Your task to perform on an android device: Open Amazon Image 0: 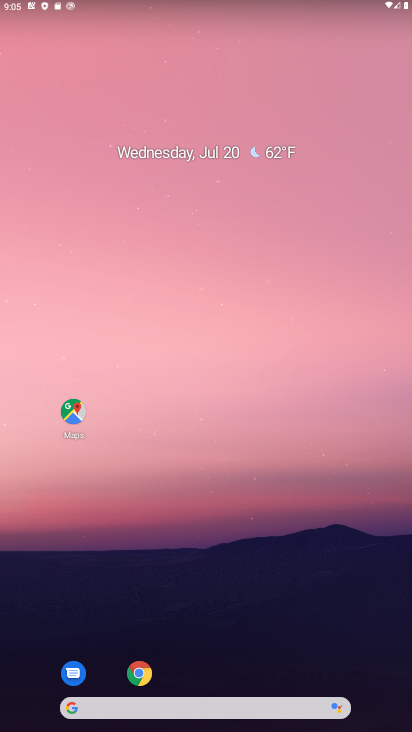
Step 0: click (140, 671)
Your task to perform on an android device: Open Amazon Image 1: 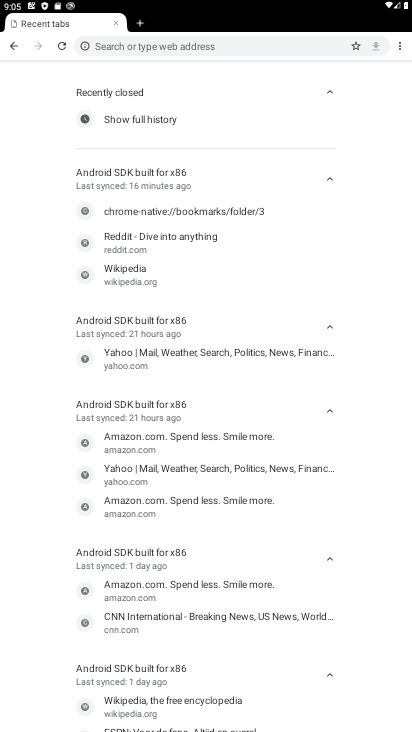
Step 1: click (312, 43)
Your task to perform on an android device: Open Amazon Image 2: 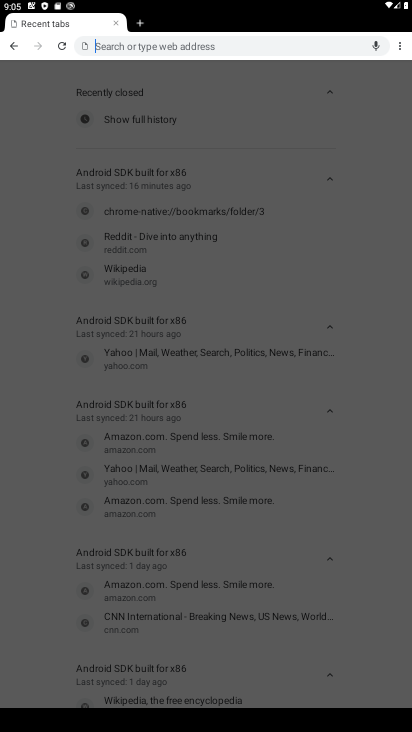
Step 2: type "Amazon"
Your task to perform on an android device: Open Amazon Image 3: 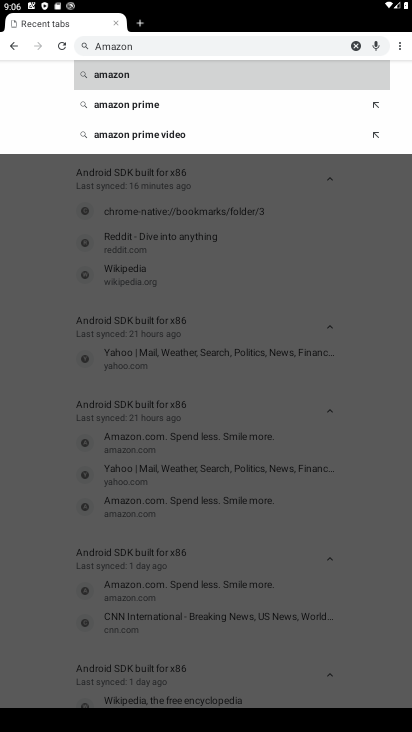
Step 3: click (136, 67)
Your task to perform on an android device: Open Amazon Image 4: 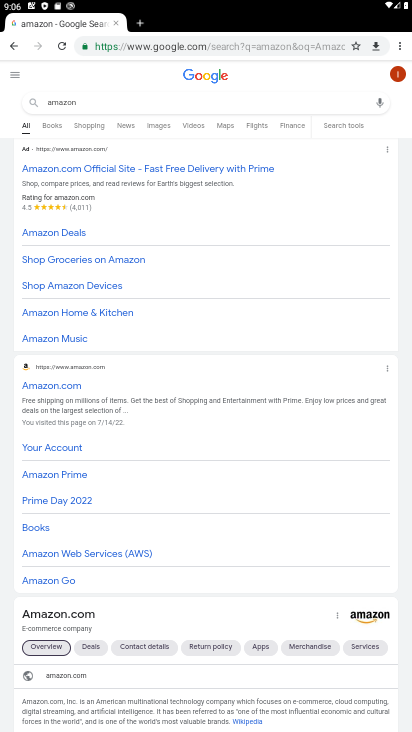
Step 4: task complete